Your task to perform on an android device: What's the weather going to be this weekend? Image 0: 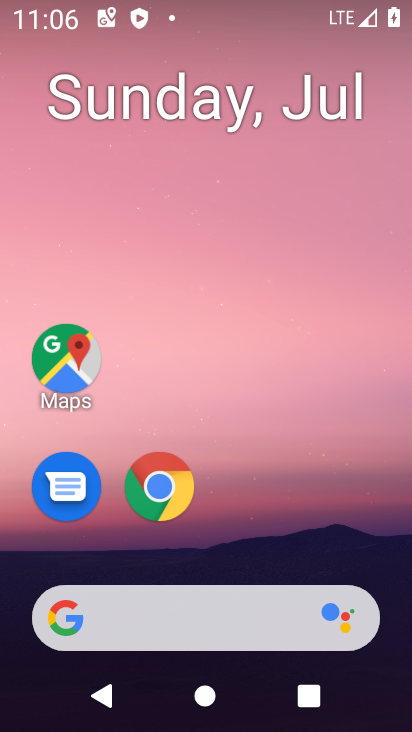
Step 0: press home button
Your task to perform on an android device: What's the weather going to be this weekend? Image 1: 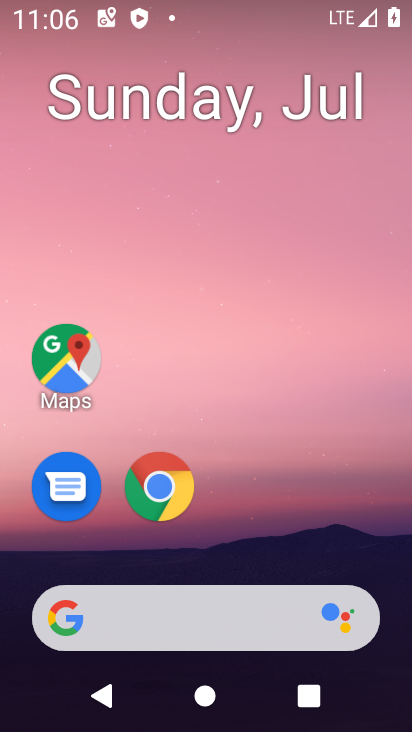
Step 1: click (225, 623)
Your task to perform on an android device: What's the weather going to be this weekend? Image 2: 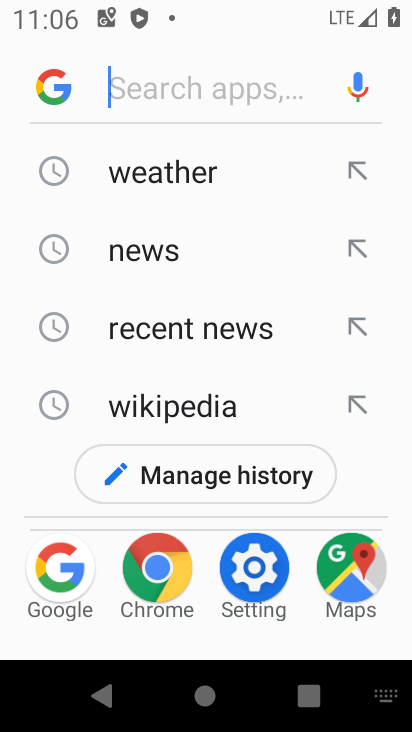
Step 2: click (181, 159)
Your task to perform on an android device: What's the weather going to be this weekend? Image 3: 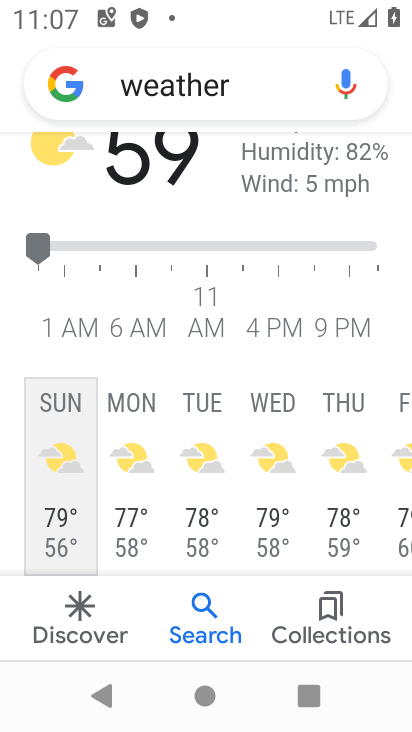
Step 3: drag from (368, 419) to (93, 412)
Your task to perform on an android device: What's the weather going to be this weekend? Image 4: 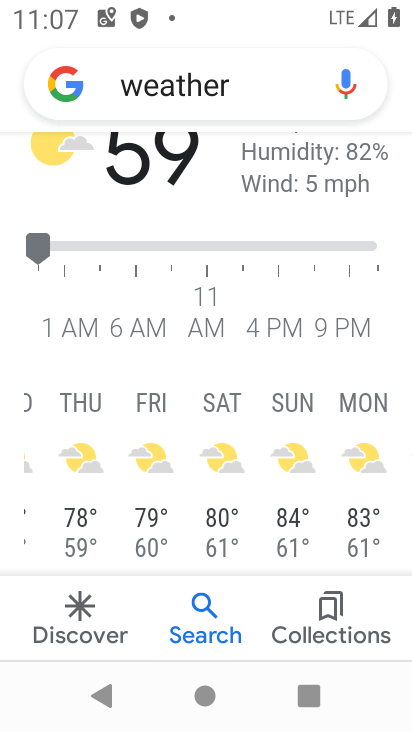
Step 4: click (232, 375)
Your task to perform on an android device: What's the weather going to be this weekend? Image 5: 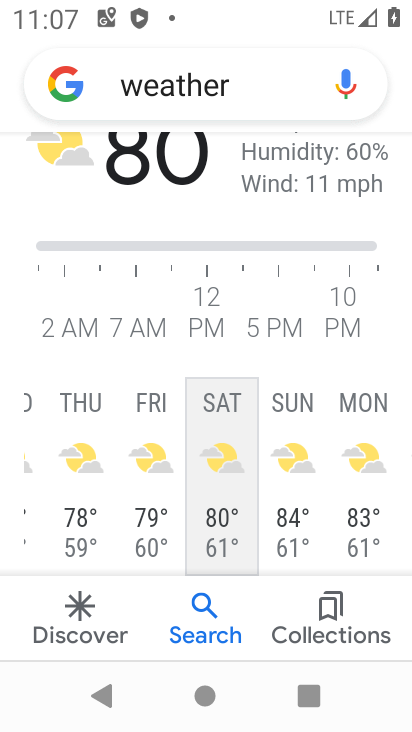
Step 5: task complete